Your task to perform on an android device: delete the emails in spam in the gmail app Image 0: 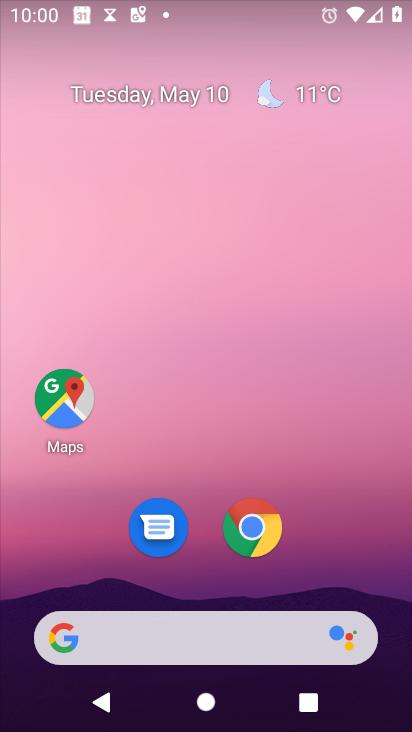
Step 0: drag from (347, 542) to (287, 104)
Your task to perform on an android device: delete the emails in spam in the gmail app Image 1: 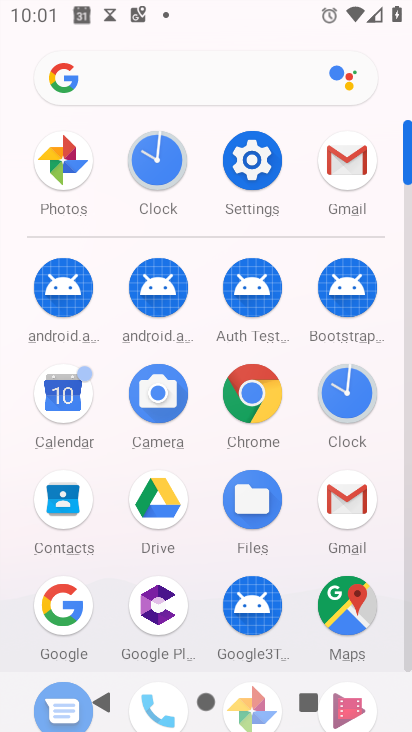
Step 1: click (334, 163)
Your task to perform on an android device: delete the emails in spam in the gmail app Image 2: 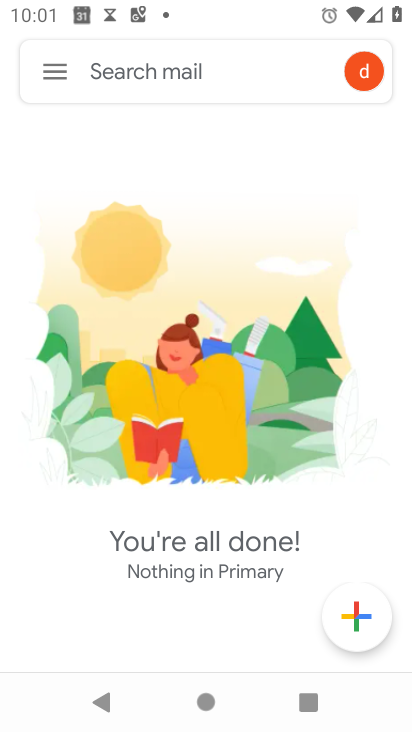
Step 2: click (49, 75)
Your task to perform on an android device: delete the emails in spam in the gmail app Image 3: 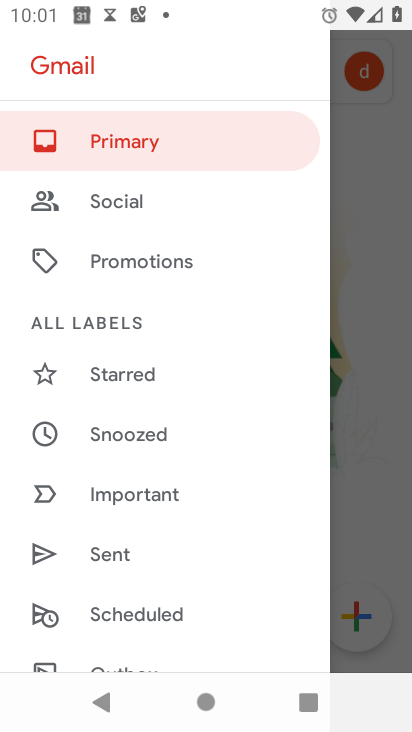
Step 3: drag from (221, 539) to (192, 310)
Your task to perform on an android device: delete the emails in spam in the gmail app Image 4: 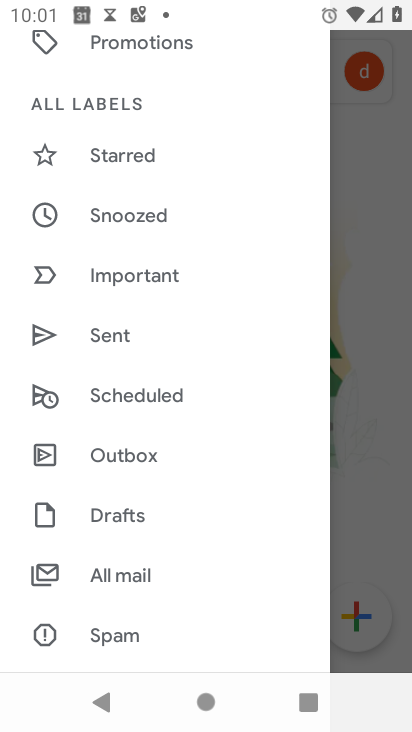
Step 4: click (159, 627)
Your task to perform on an android device: delete the emails in spam in the gmail app Image 5: 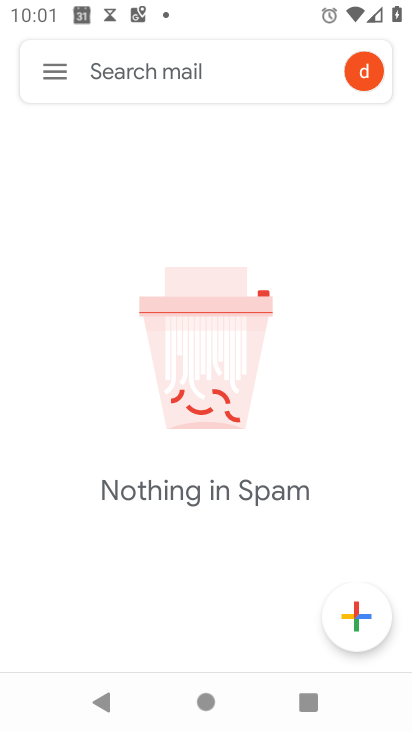
Step 5: task complete